Your task to perform on an android device: When is my next meeting? Image 0: 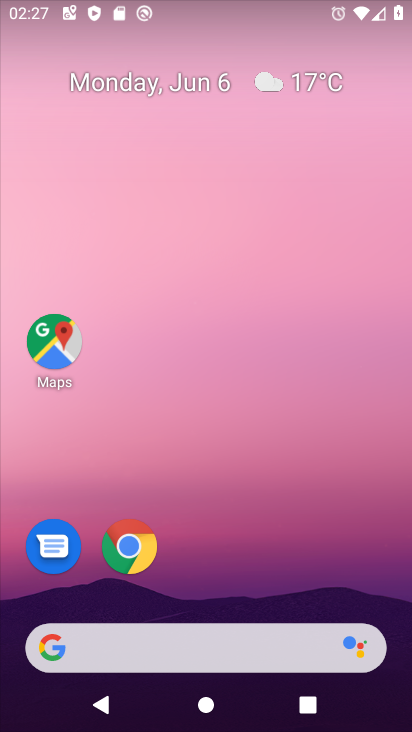
Step 0: drag from (214, 560) to (251, 305)
Your task to perform on an android device: When is my next meeting? Image 1: 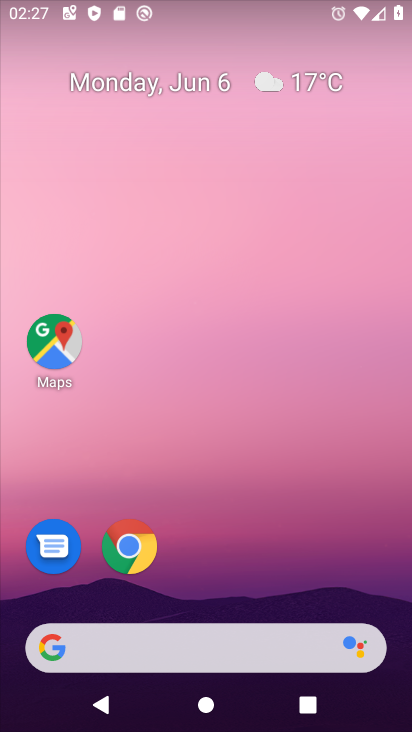
Step 1: drag from (182, 616) to (228, 192)
Your task to perform on an android device: When is my next meeting? Image 2: 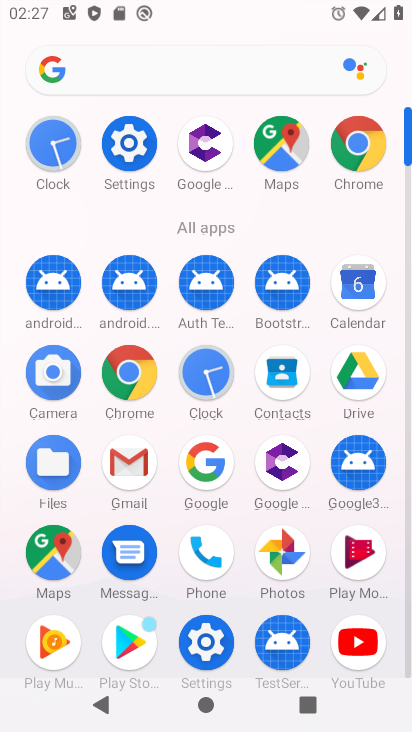
Step 2: click (349, 265)
Your task to perform on an android device: When is my next meeting? Image 3: 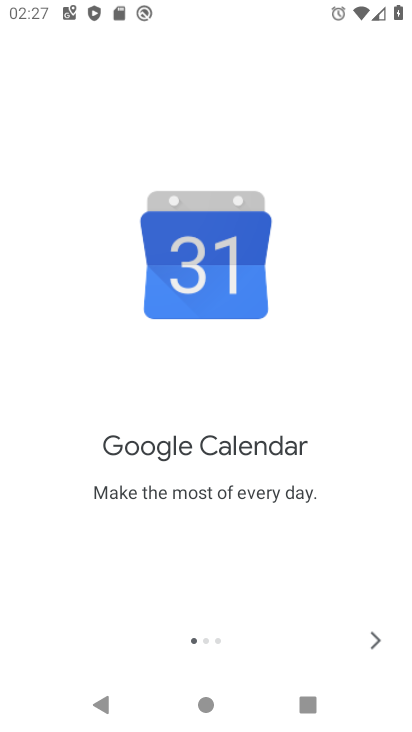
Step 3: click (381, 631)
Your task to perform on an android device: When is my next meeting? Image 4: 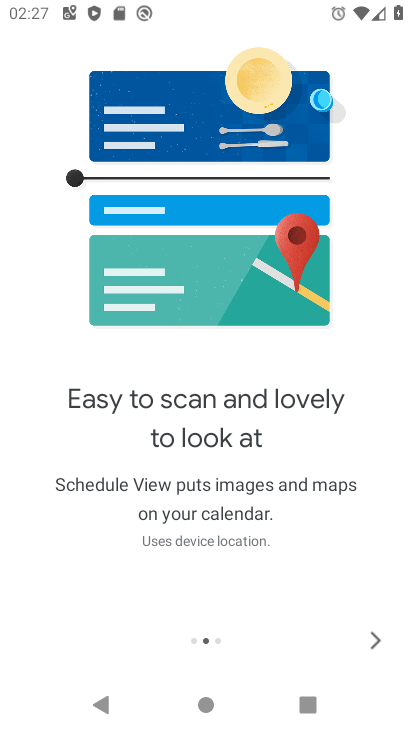
Step 4: click (379, 629)
Your task to perform on an android device: When is my next meeting? Image 5: 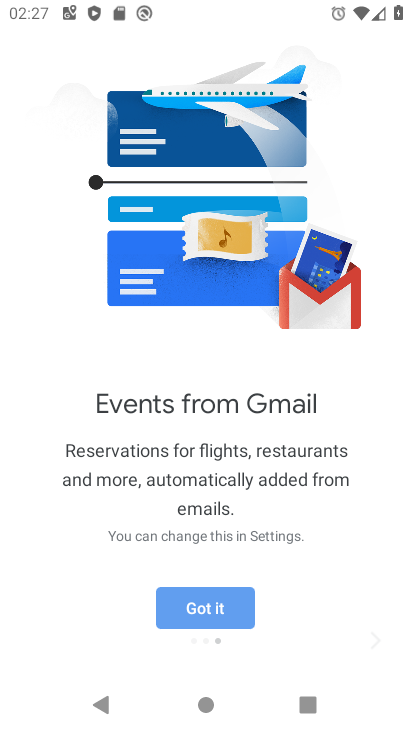
Step 5: click (379, 629)
Your task to perform on an android device: When is my next meeting? Image 6: 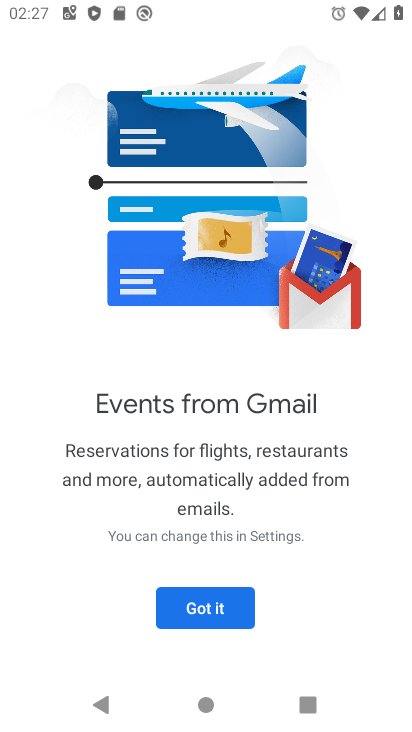
Step 6: click (210, 599)
Your task to perform on an android device: When is my next meeting? Image 7: 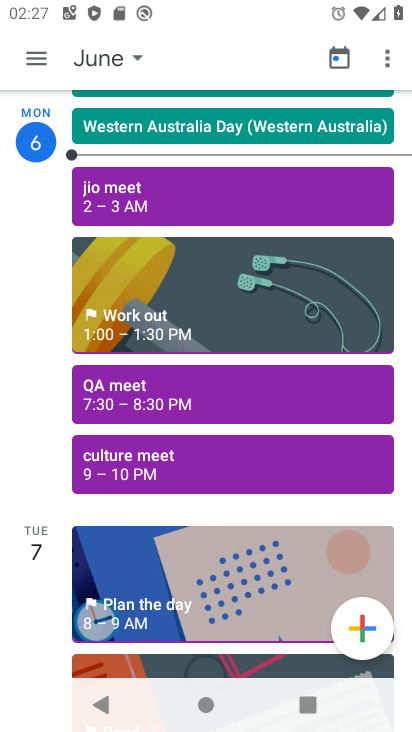
Step 7: task complete